Your task to perform on an android device: What's the weather going to be this weekend? Image 0: 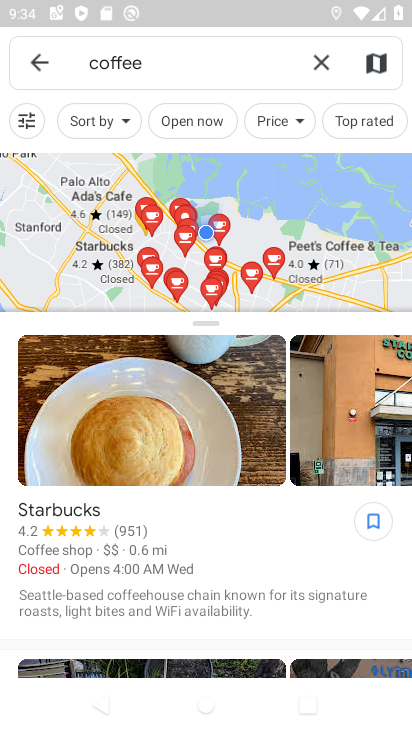
Step 0: press home button
Your task to perform on an android device: What's the weather going to be this weekend? Image 1: 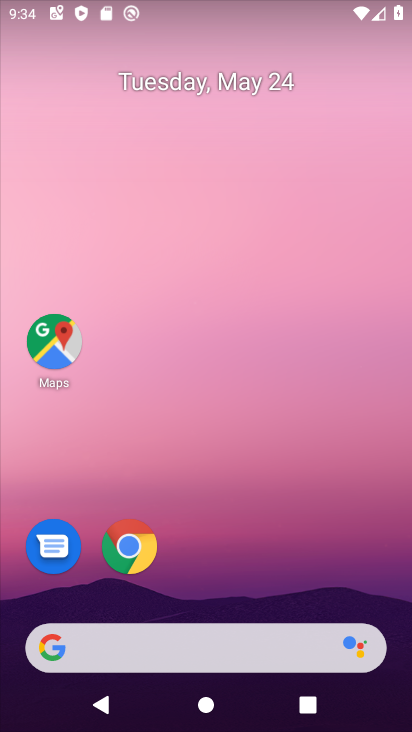
Step 1: drag from (144, 618) to (160, 207)
Your task to perform on an android device: What's the weather going to be this weekend? Image 2: 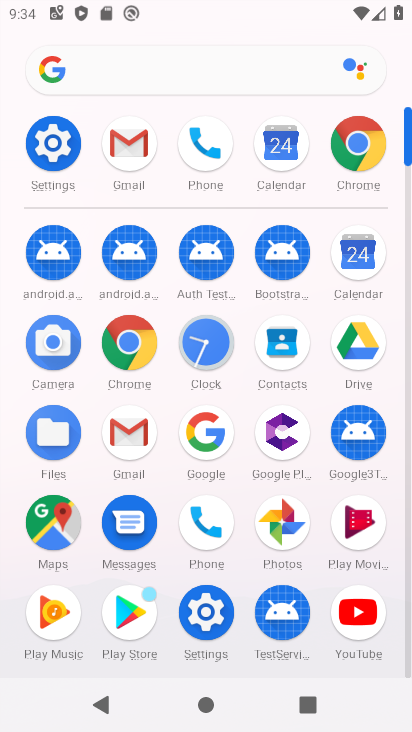
Step 2: click (209, 433)
Your task to perform on an android device: What's the weather going to be this weekend? Image 3: 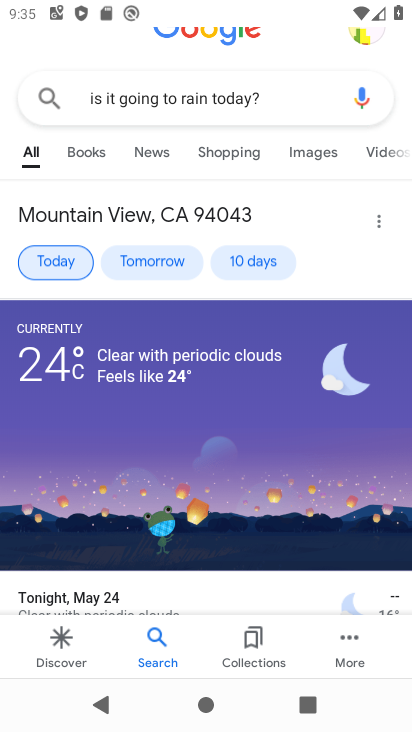
Step 3: click (250, 269)
Your task to perform on an android device: What's the weather going to be this weekend? Image 4: 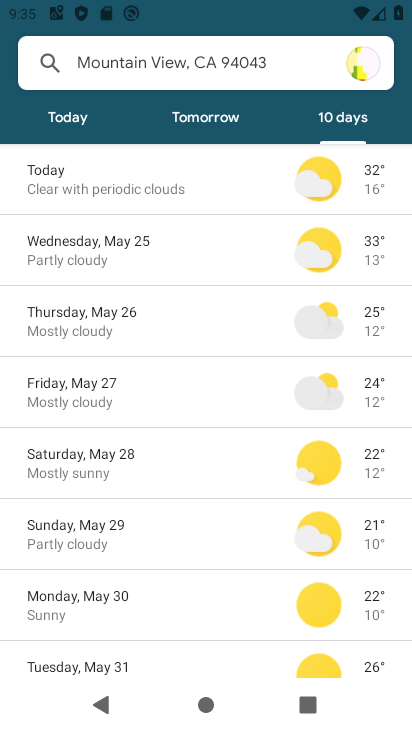
Step 4: task complete